Your task to perform on an android device: Search for hotels in Tokyo Image 0: 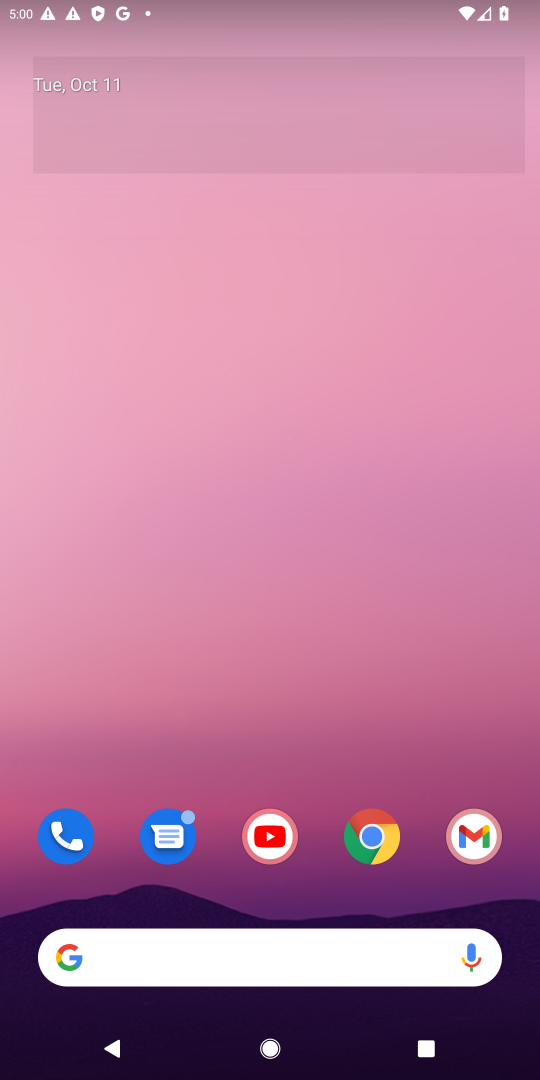
Step 0: click (352, 858)
Your task to perform on an android device: Search for hotels in Tokyo Image 1: 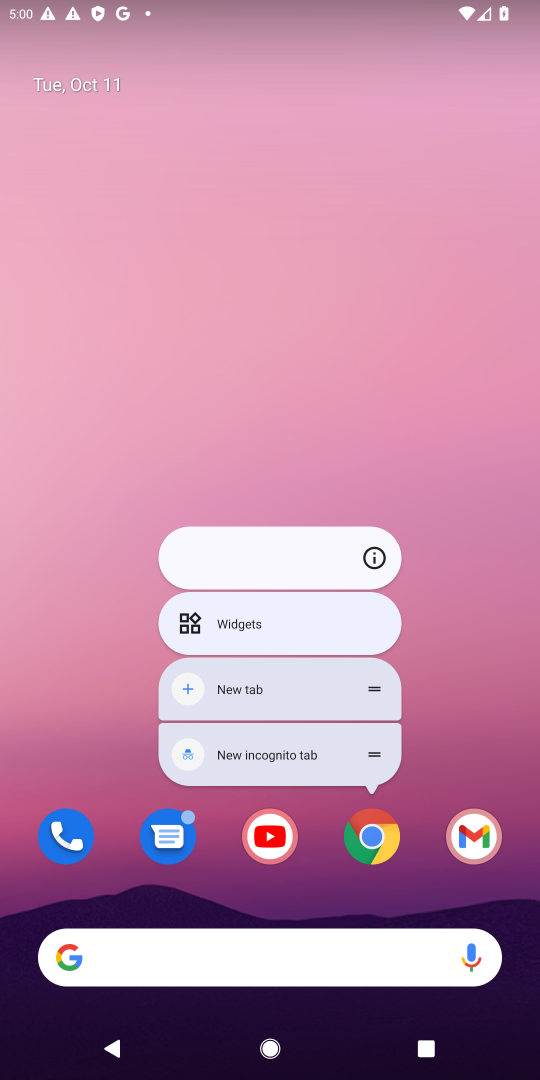
Step 1: click (369, 841)
Your task to perform on an android device: Search for hotels in Tokyo Image 2: 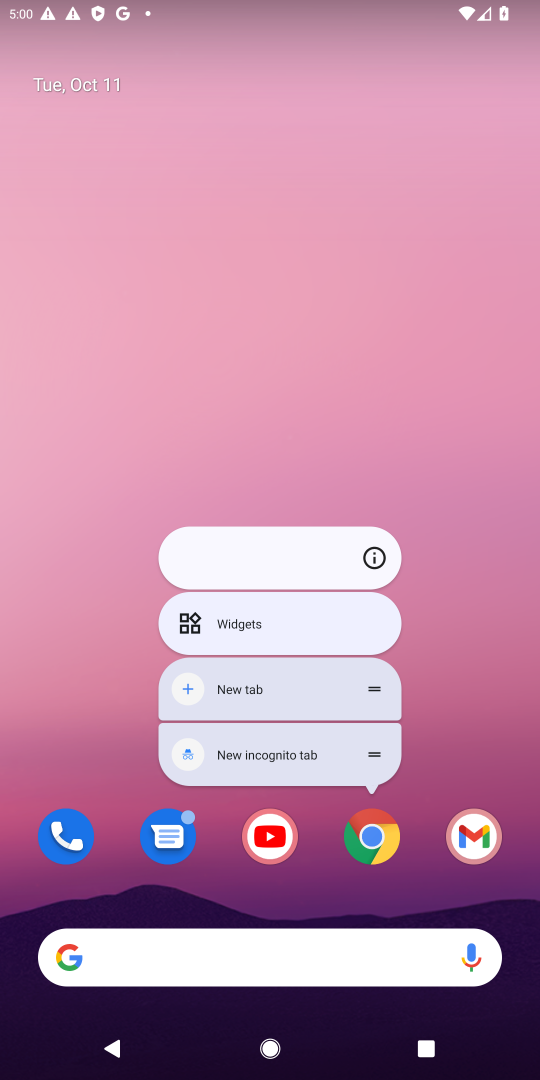
Step 2: click (382, 833)
Your task to perform on an android device: Search for hotels in Tokyo Image 3: 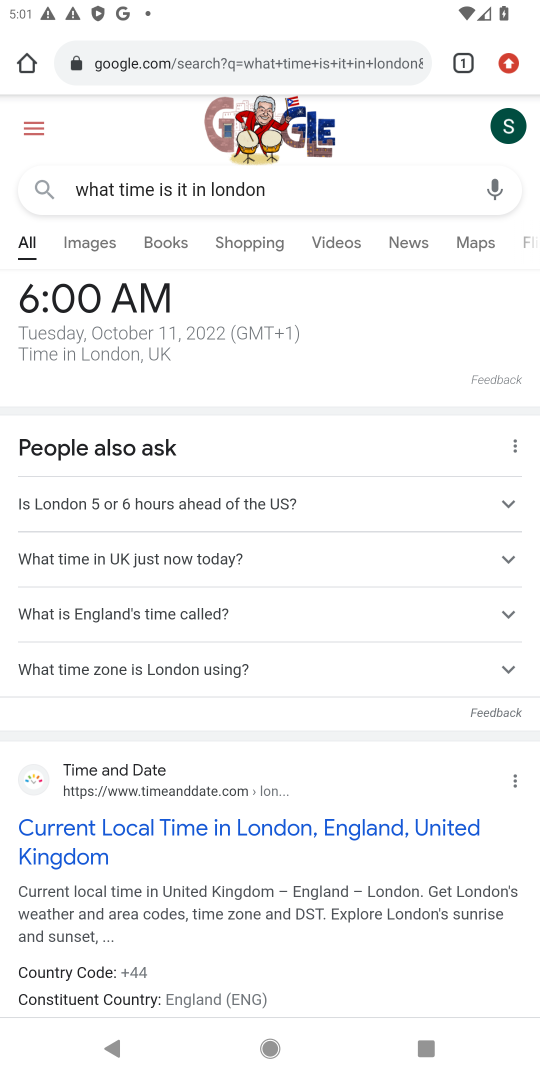
Step 3: click (371, 57)
Your task to perform on an android device: Search for hotels in Tokyo Image 4: 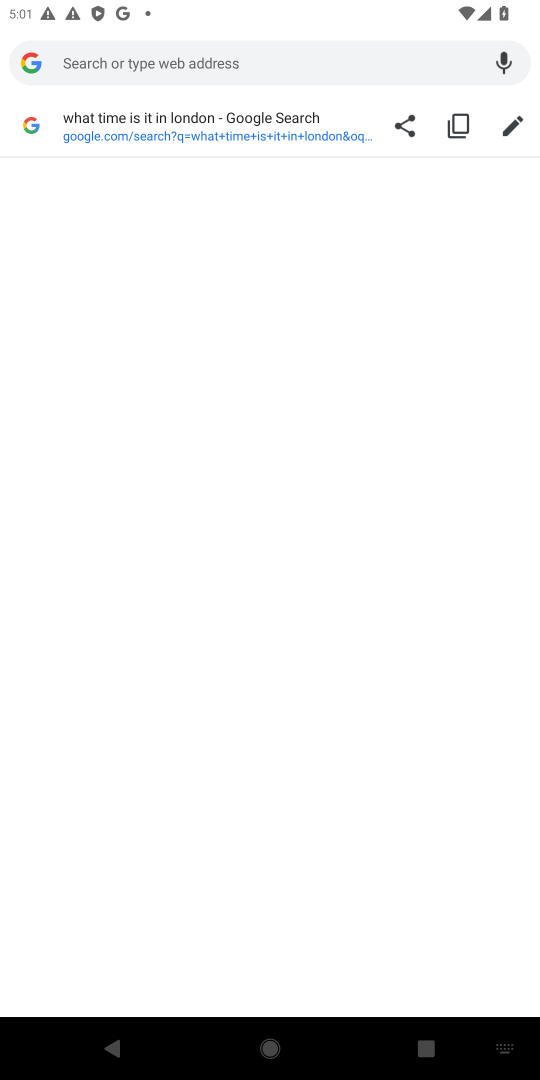
Step 4: type "hotels in Tokyo"
Your task to perform on an android device: Search for hotels in Tokyo Image 5: 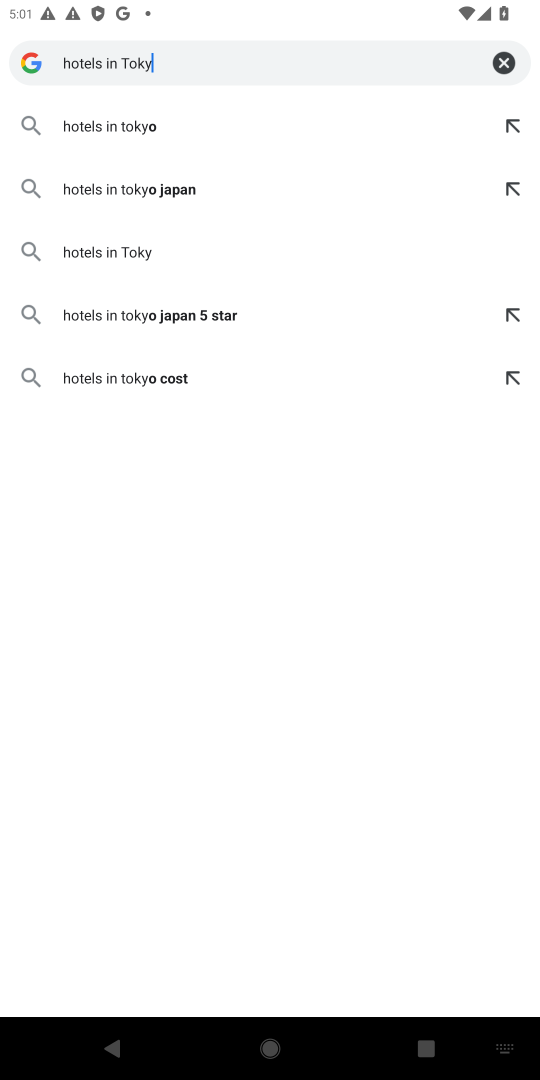
Step 5: press enter
Your task to perform on an android device: Search for hotels in Tokyo Image 6: 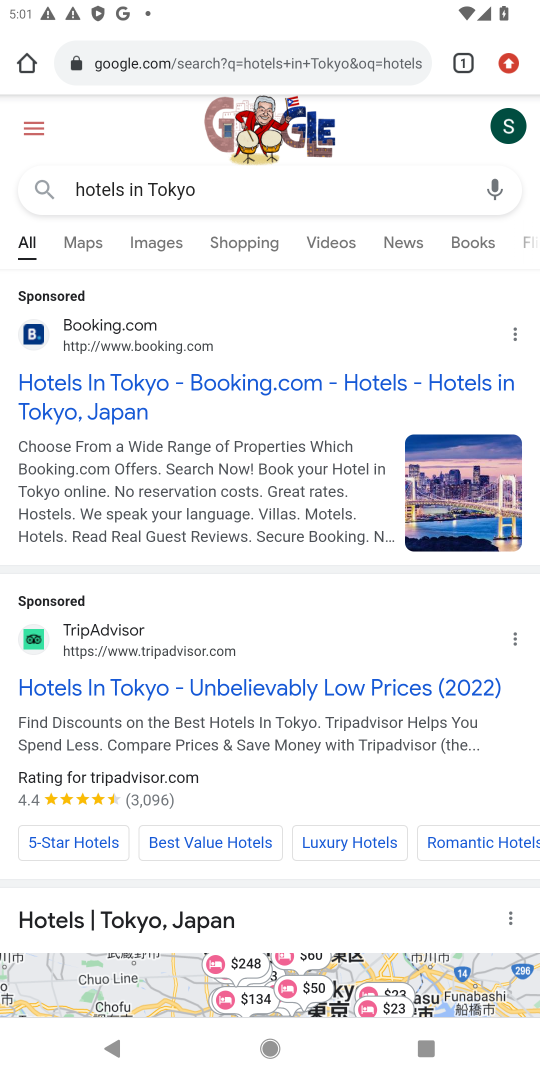
Step 6: drag from (284, 815) to (512, 1047)
Your task to perform on an android device: Search for hotels in Tokyo Image 7: 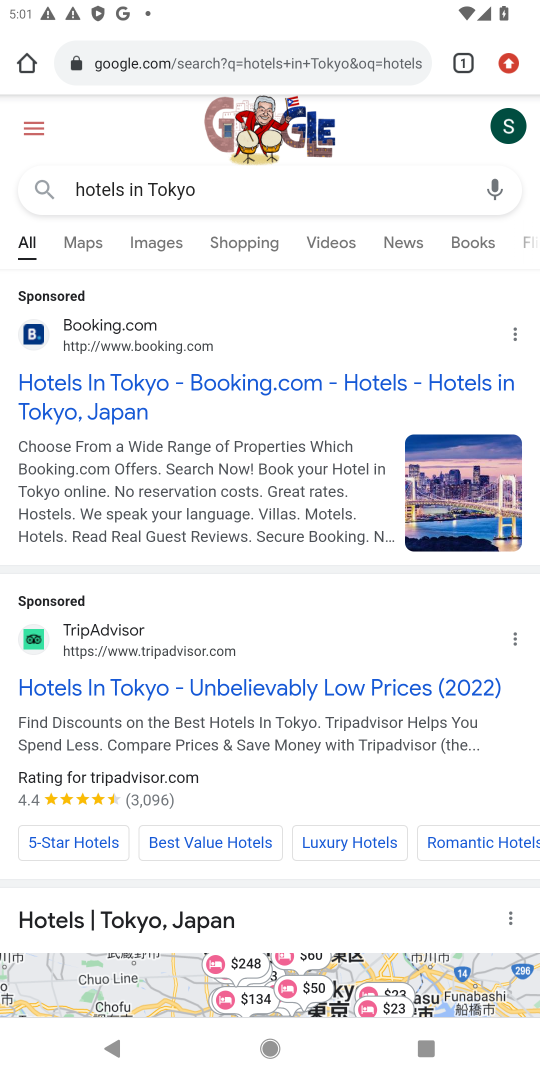
Step 7: drag from (203, 860) to (382, 223)
Your task to perform on an android device: Search for hotels in Tokyo Image 8: 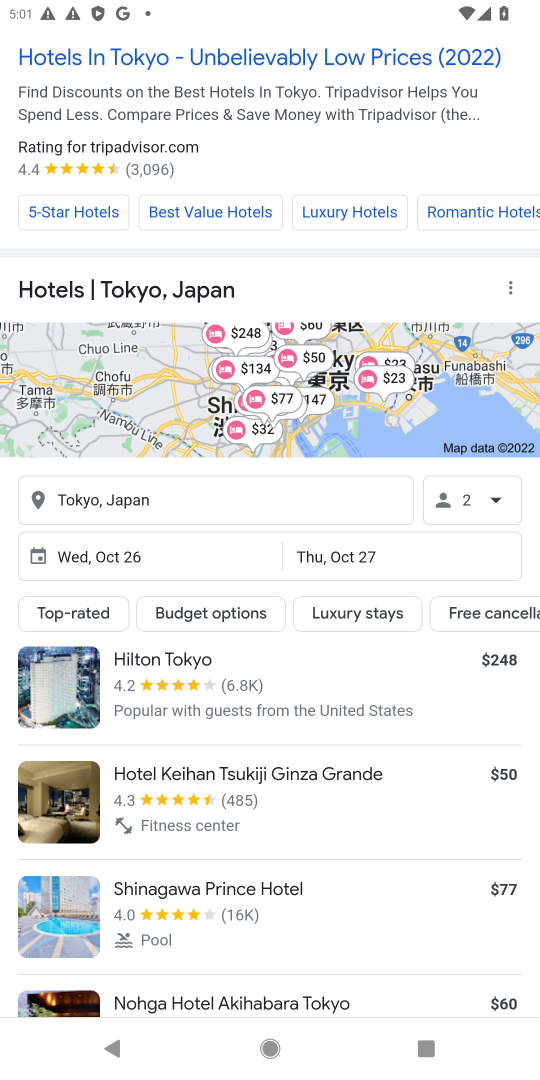
Step 8: drag from (242, 913) to (385, 242)
Your task to perform on an android device: Search for hotels in Tokyo Image 9: 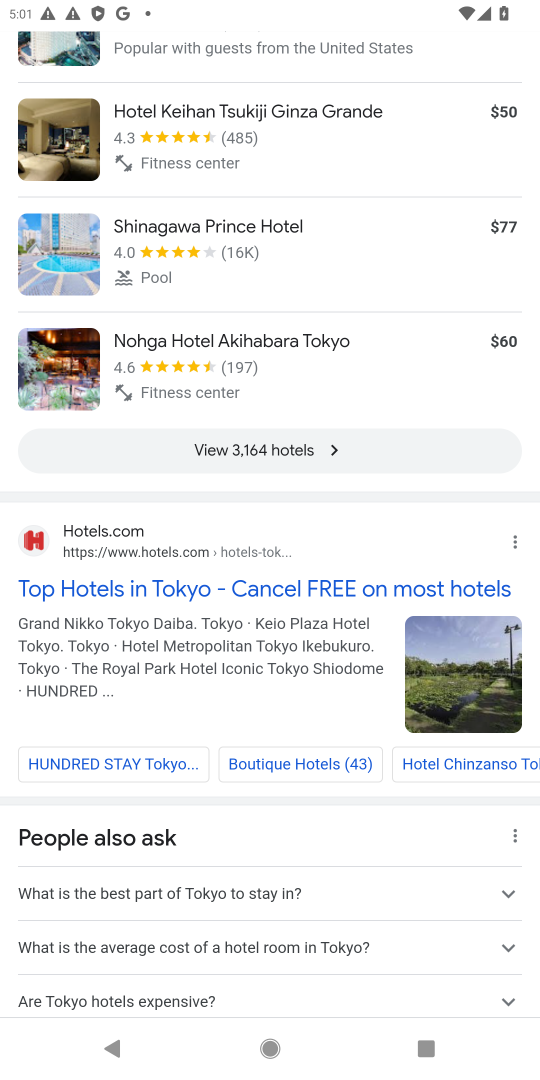
Step 9: click (272, 450)
Your task to perform on an android device: Search for hotels in Tokyo Image 10: 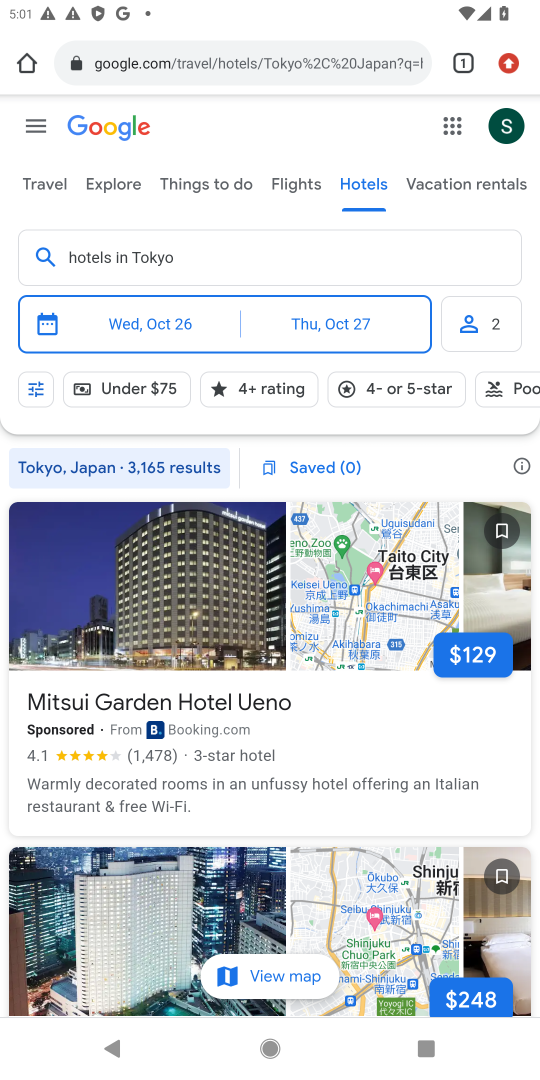
Step 10: task complete